Your task to perform on an android device: Add logitech g910 to the cart on newegg.com, then select checkout. Image 0: 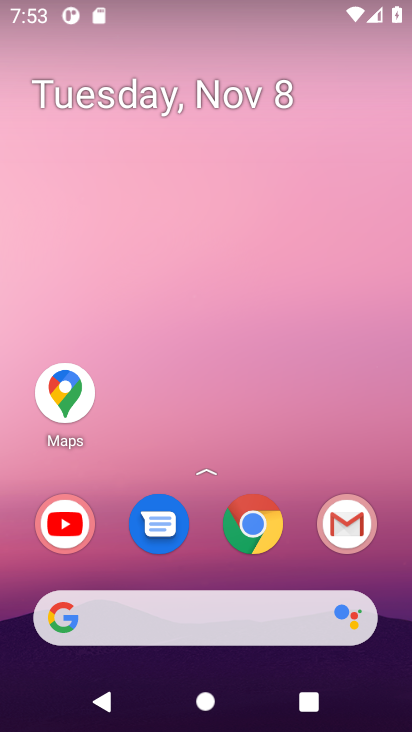
Step 0: click (256, 524)
Your task to perform on an android device: Add logitech g910 to the cart on newegg.com, then select checkout. Image 1: 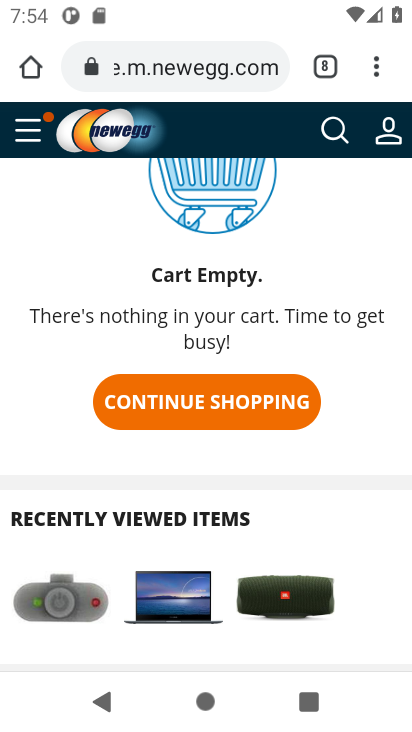
Step 1: click (326, 139)
Your task to perform on an android device: Add logitech g910 to the cart on newegg.com, then select checkout. Image 2: 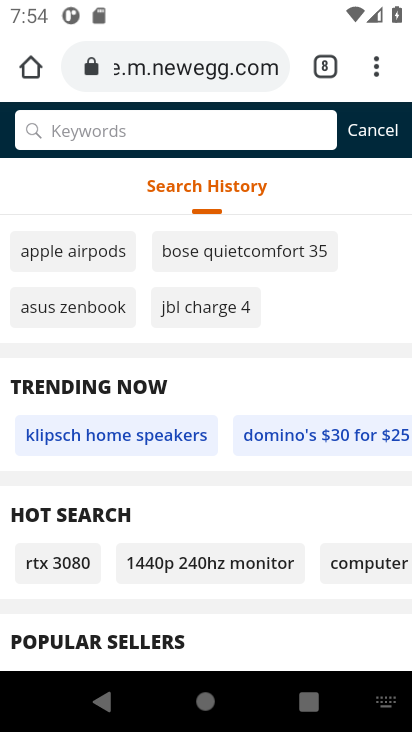
Step 2: type "logitech g910 "
Your task to perform on an android device: Add logitech g910 to the cart on newegg.com, then select checkout. Image 3: 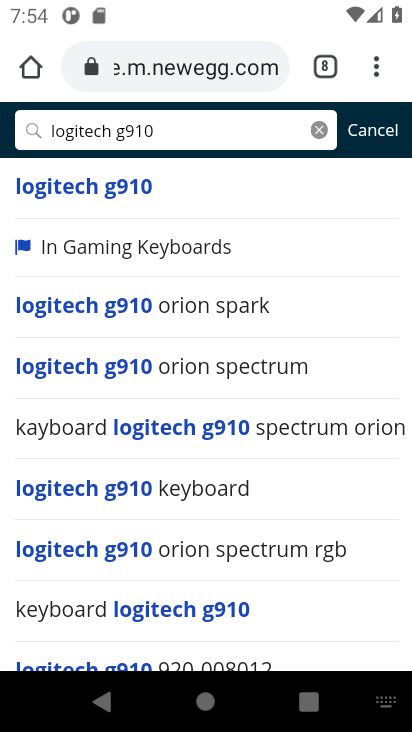
Step 3: click (92, 201)
Your task to perform on an android device: Add logitech g910 to the cart on newegg.com, then select checkout. Image 4: 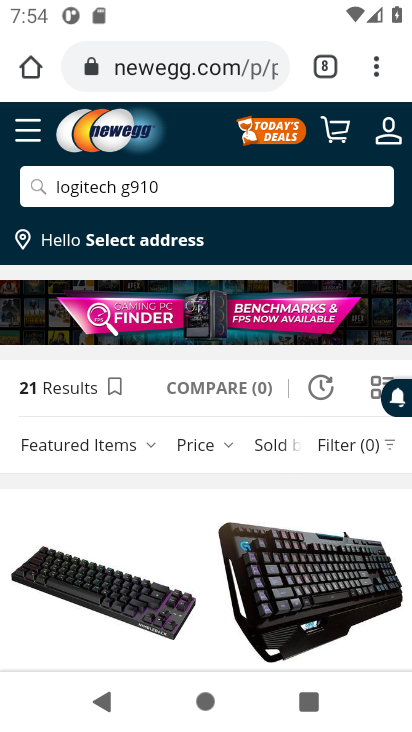
Step 4: drag from (182, 507) to (195, 280)
Your task to perform on an android device: Add logitech g910 to the cart on newegg.com, then select checkout. Image 5: 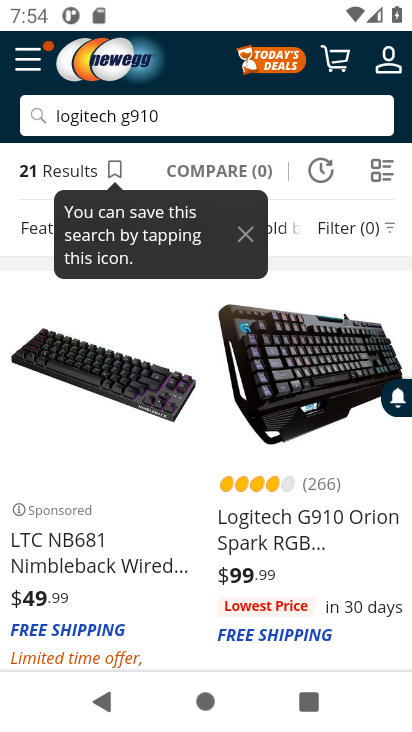
Step 5: click (313, 434)
Your task to perform on an android device: Add logitech g910 to the cart on newegg.com, then select checkout. Image 6: 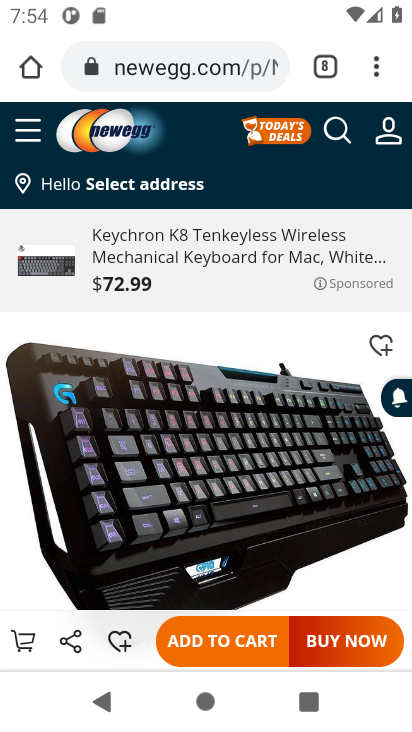
Step 6: click (239, 640)
Your task to perform on an android device: Add logitech g910 to the cart on newegg.com, then select checkout. Image 7: 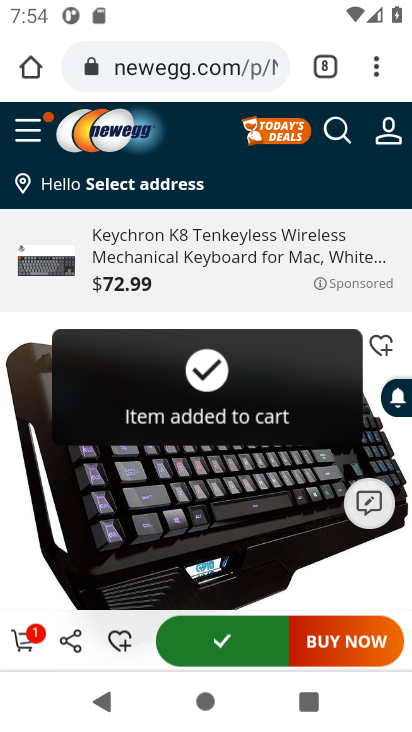
Step 7: click (31, 646)
Your task to perform on an android device: Add logitech g910 to the cart on newegg.com, then select checkout. Image 8: 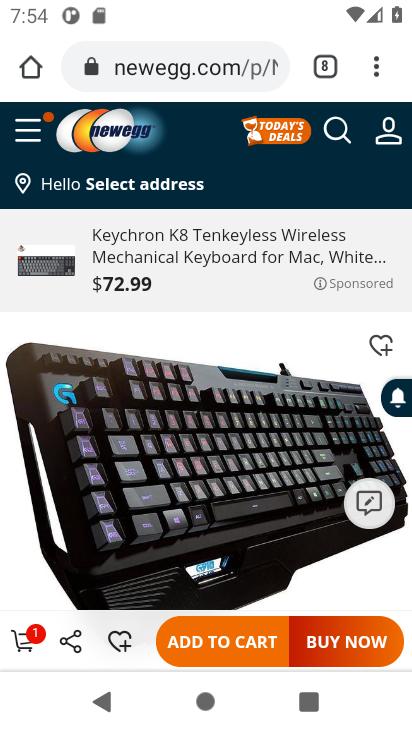
Step 8: click (20, 646)
Your task to perform on an android device: Add logitech g910 to the cart on newegg.com, then select checkout. Image 9: 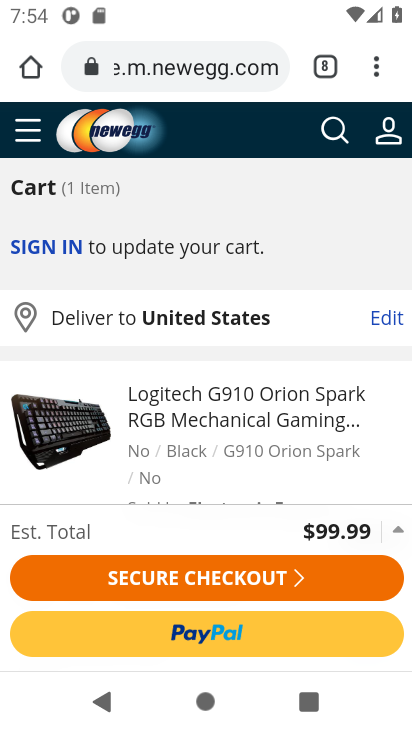
Step 9: click (152, 624)
Your task to perform on an android device: Add logitech g910 to the cart on newegg.com, then select checkout. Image 10: 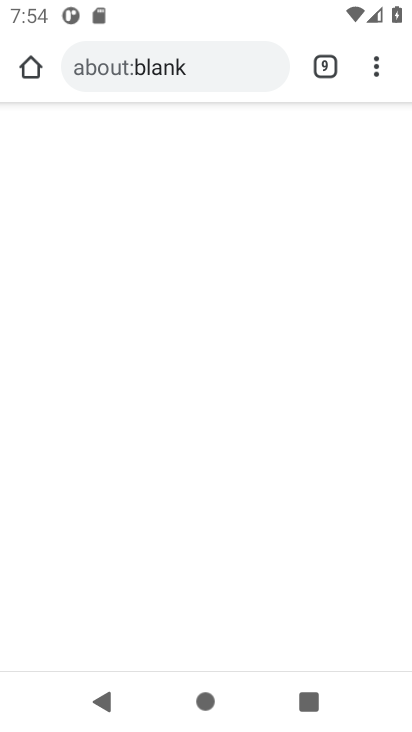
Step 10: click (159, 589)
Your task to perform on an android device: Add logitech g910 to the cart on newegg.com, then select checkout. Image 11: 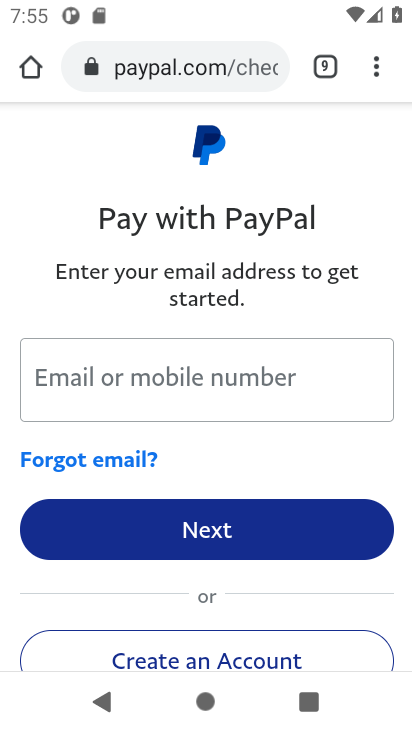
Step 11: press back button
Your task to perform on an android device: Add logitech g910 to the cart on newegg.com, then select checkout. Image 12: 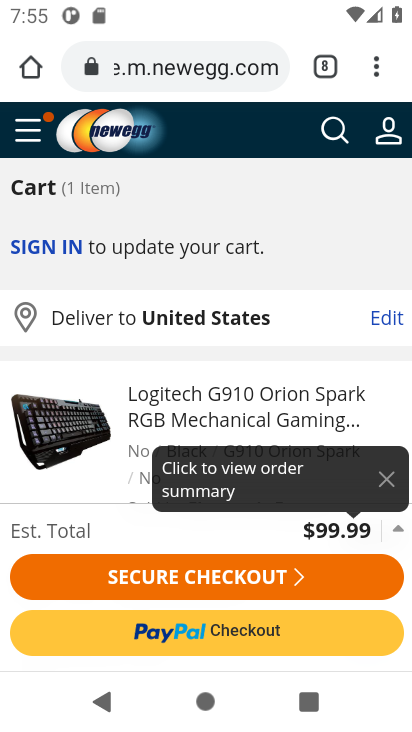
Step 12: click (176, 572)
Your task to perform on an android device: Add logitech g910 to the cart on newegg.com, then select checkout. Image 13: 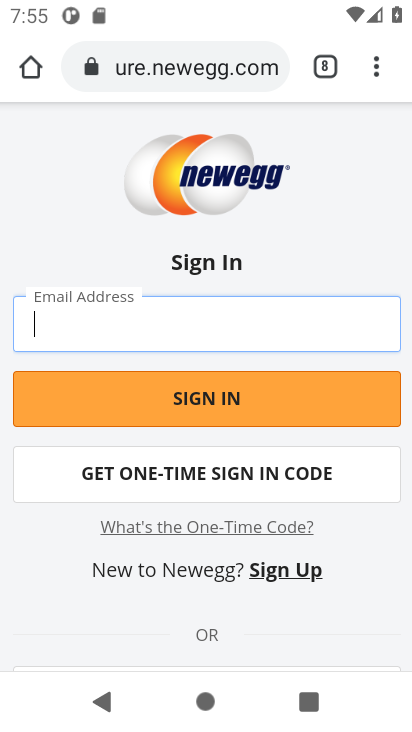
Step 13: task complete